Your task to perform on an android device: change the clock display to analog Image 0: 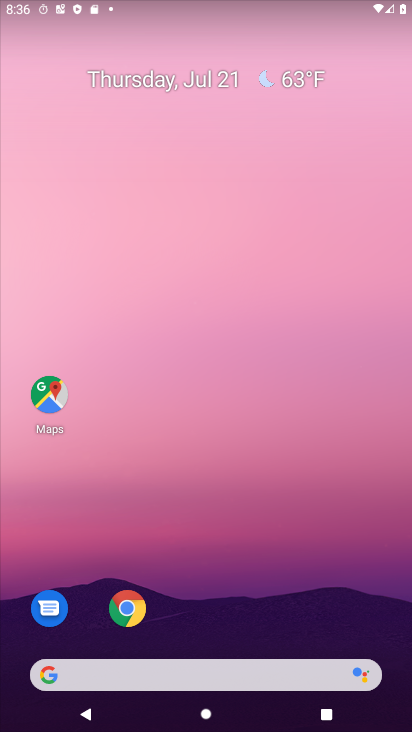
Step 0: press home button
Your task to perform on an android device: change the clock display to analog Image 1: 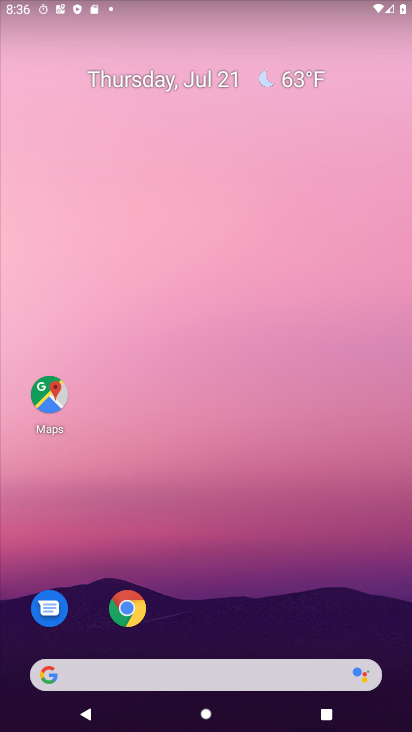
Step 1: drag from (242, 619) to (312, 212)
Your task to perform on an android device: change the clock display to analog Image 2: 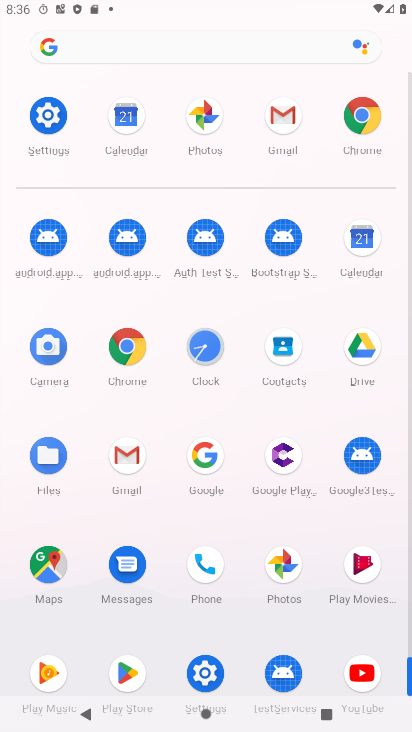
Step 2: click (210, 350)
Your task to perform on an android device: change the clock display to analog Image 3: 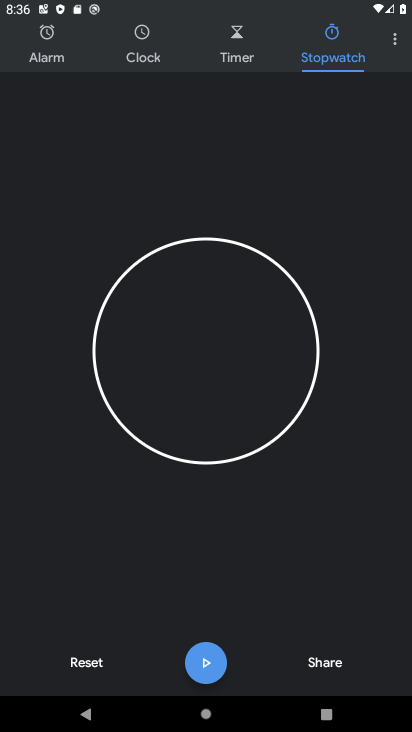
Step 3: click (394, 24)
Your task to perform on an android device: change the clock display to analog Image 4: 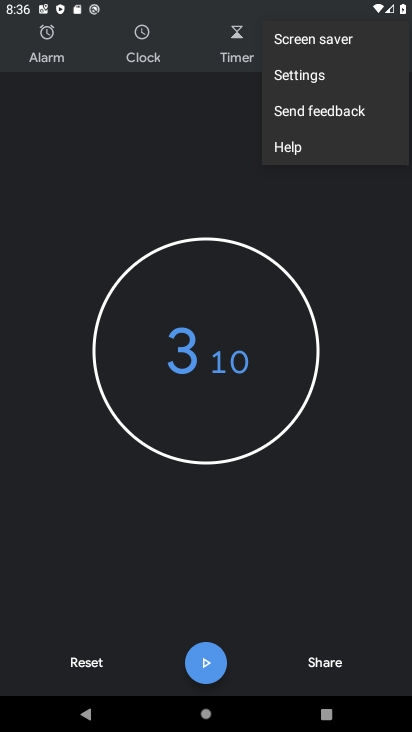
Step 4: click (310, 74)
Your task to perform on an android device: change the clock display to analog Image 5: 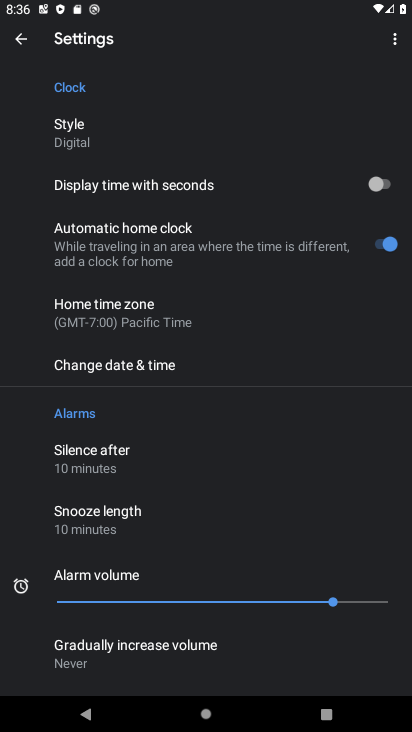
Step 5: click (69, 139)
Your task to perform on an android device: change the clock display to analog Image 6: 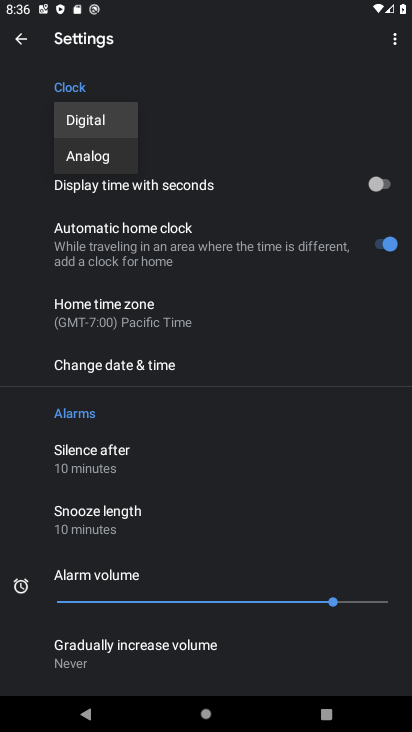
Step 6: click (78, 151)
Your task to perform on an android device: change the clock display to analog Image 7: 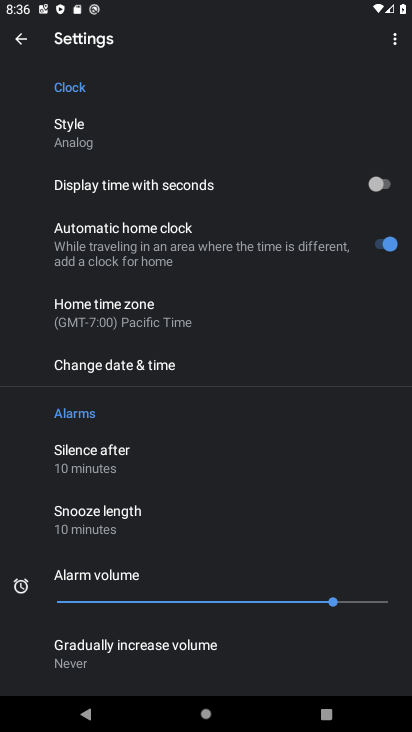
Step 7: task complete